Your task to perform on an android device: What's the weather? Image 0: 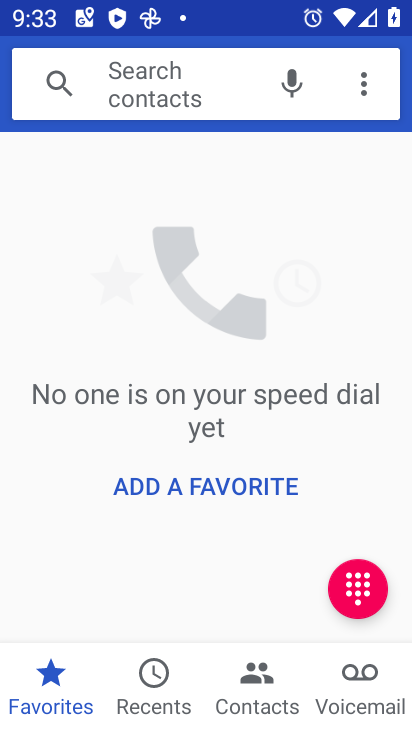
Step 0: press home button
Your task to perform on an android device: What's the weather? Image 1: 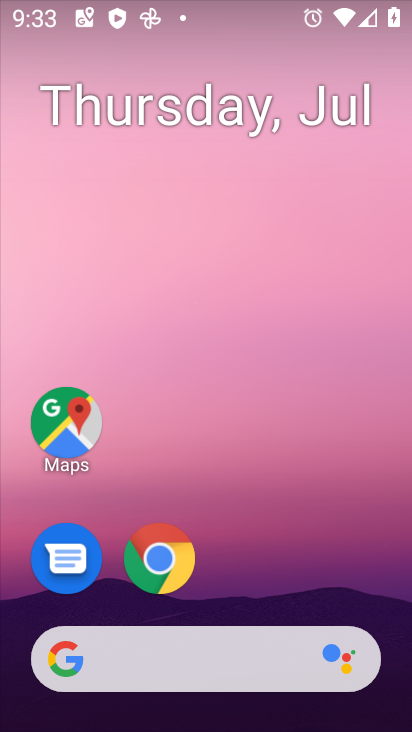
Step 1: click (252, 665)
Your task to perform on an android device: What's the weather? Image 2: 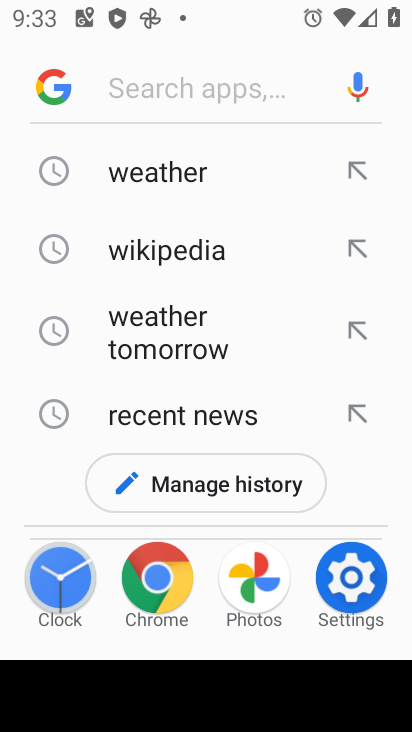
Step 2: click (219, 173)
Your task to perform on an android device: What's the weather? Image 3: 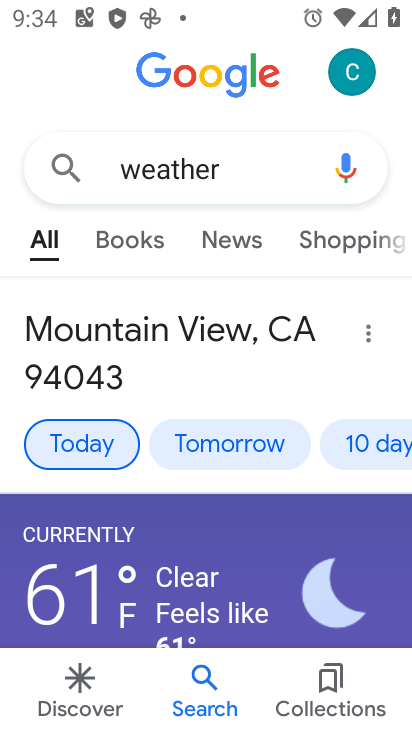
Step 3: task complete